Your task to perform on an android device: Go to wifi settings Image 0: 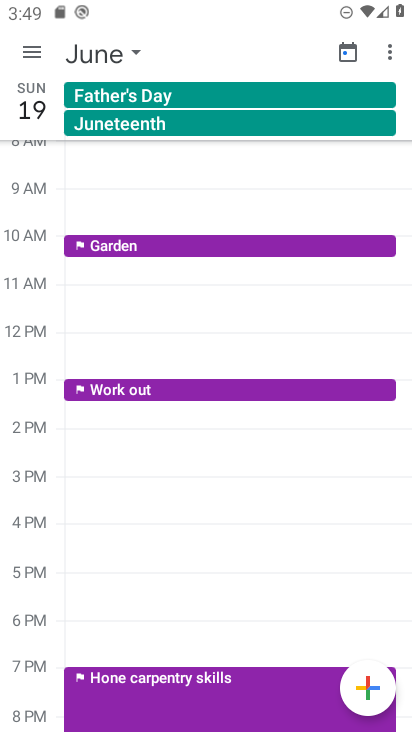
Step 0: press home button
Your task to perform on an android device: Go to wifi settings Image 1: 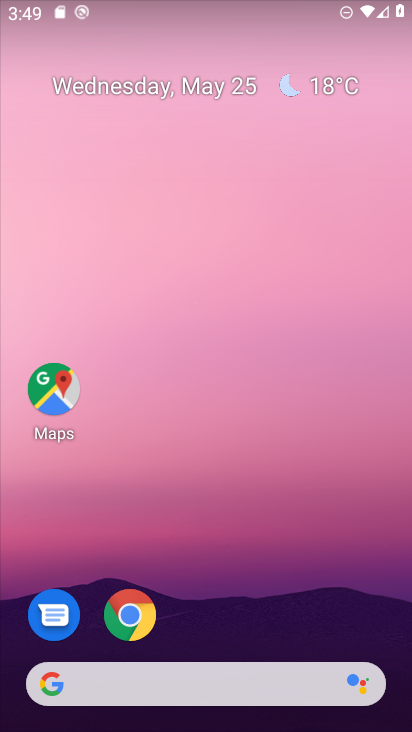
Step 1: drag from (231, 593) to (274, 48)
Your task to perform on an android device: Go to wifi settings Image 2: 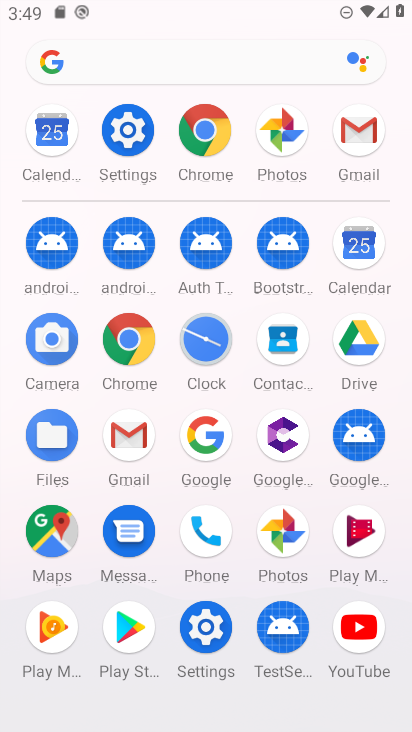
Step 2: click (136, 125)
Your task to perform on an android device: Go to wifi settings Image 3: 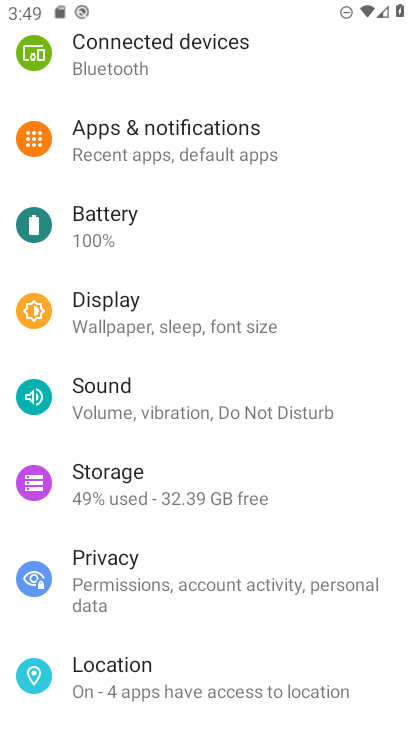
Step 3: drag from (182, 205) to (195, 541)
Your task to perform on an android device: Go to wifi settings Image 4: 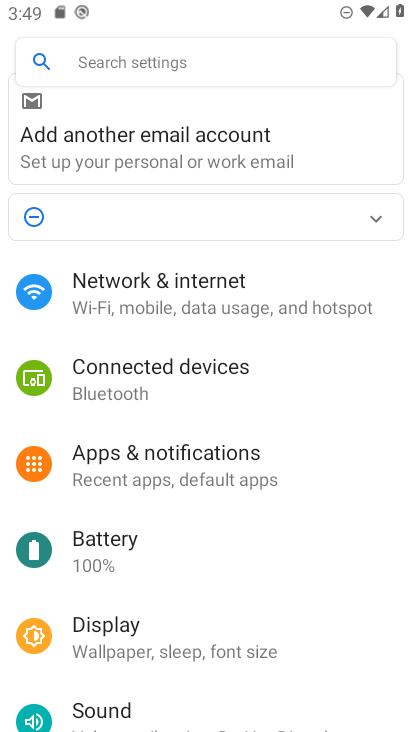
Step 4: click (221, 298)
Your task to perform on an android device: Go to wifi settings Image 5: 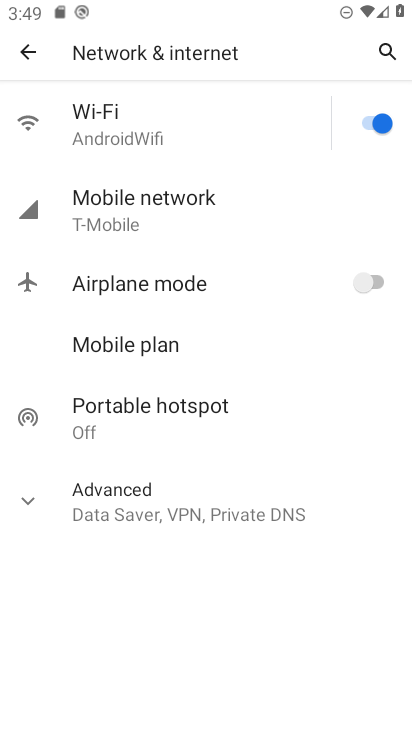
Step 5: click (126, 134)
Your task to perform on an android device: Go to wifi settings Image 6: 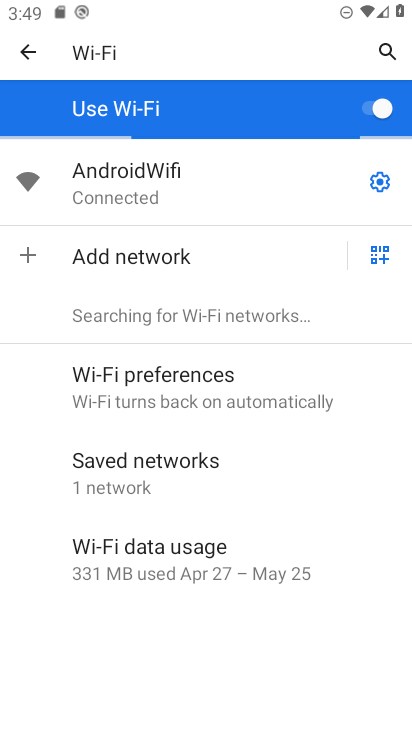
Step 6: task complete